Your task to perform on an android device: turn off notifications in google photos Image 0: 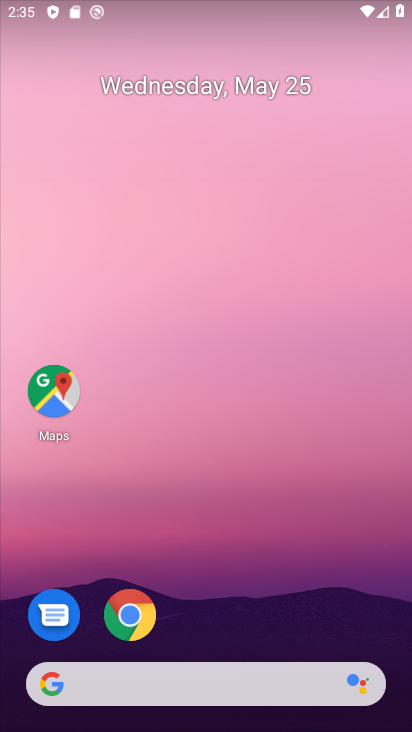
Step 0: drag from (271, 613) to (244, 130)
Your task to perform on an android device: turn off notifications in google photos Image 1: 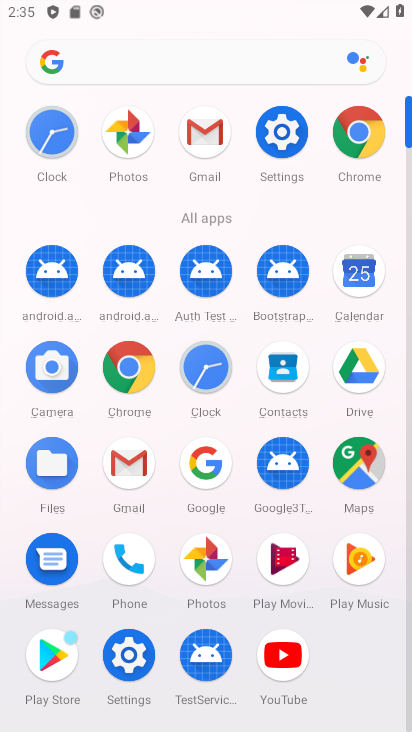
Step 1: click (113, 132)
Your task to perform on an android device: turn off notifications in google photos Image 2: 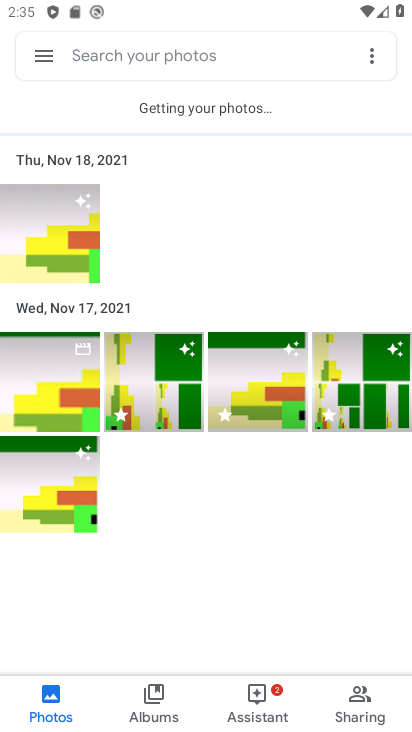
Step 2: click (36, 62)
Your task to perform on an android device: turn off notifications in google photos Image 3: 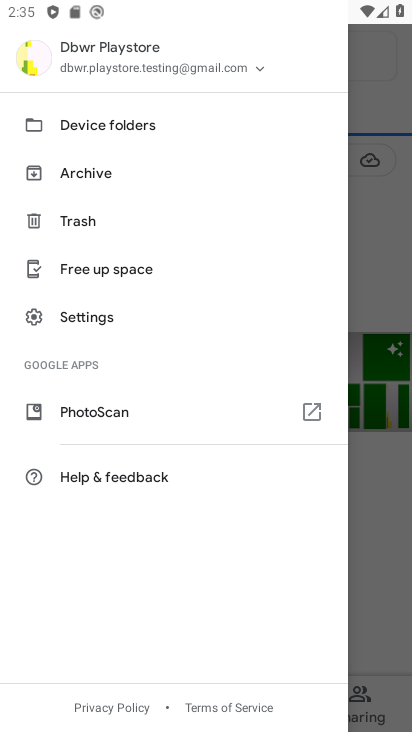
Step 3: click (86, 313)
Your task to perform on an android device: turn off notifications in google photos Image 4: 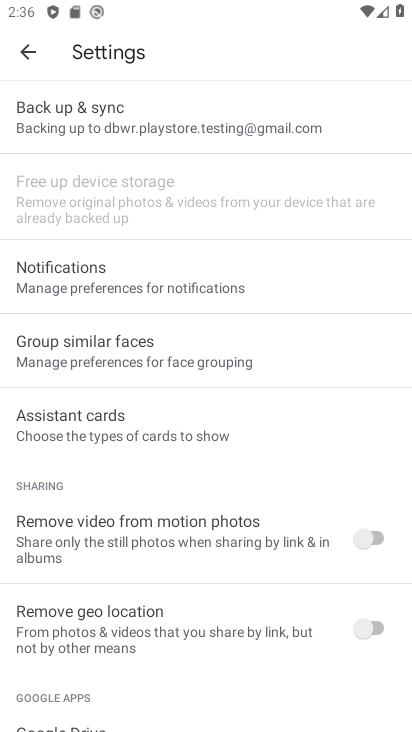
Step 4: click (142, 286)
Your task to perform on an android device: turn off notifications in google photos Image 5: 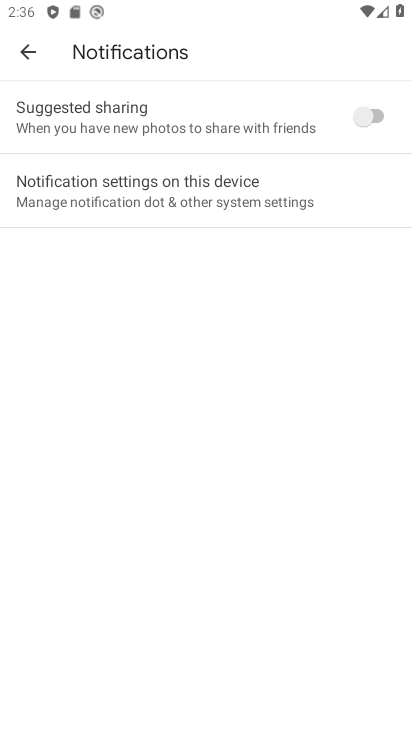
Step 5: click (175, 202)
Your task to perform on an android device: turn off notifications in google photos Image 6: 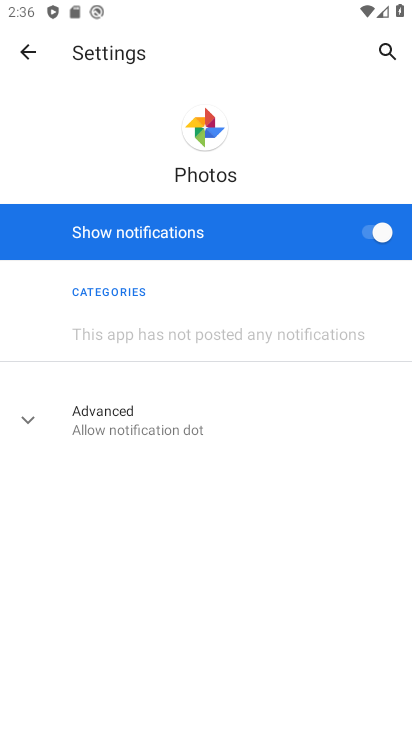
Step 6: click (380, 243)
Your task to perform on an android device: turn off notifications in google photos Image 7: 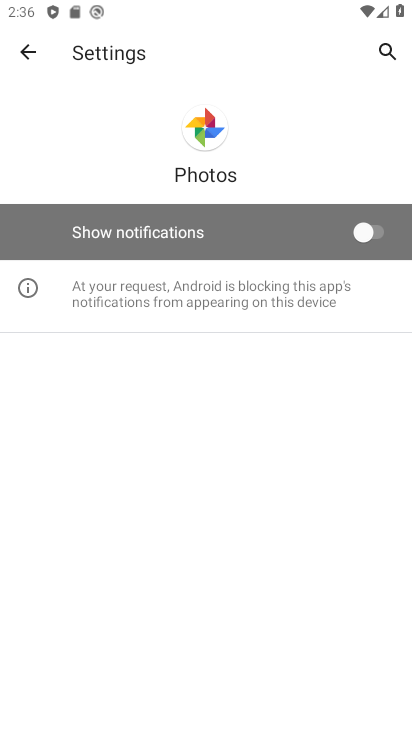
Step 7: task complete